Your task to perform on an android device: Search for "lg ultragear" on bestbuy.com, select the first entry, and add it to the cart. Image 0: 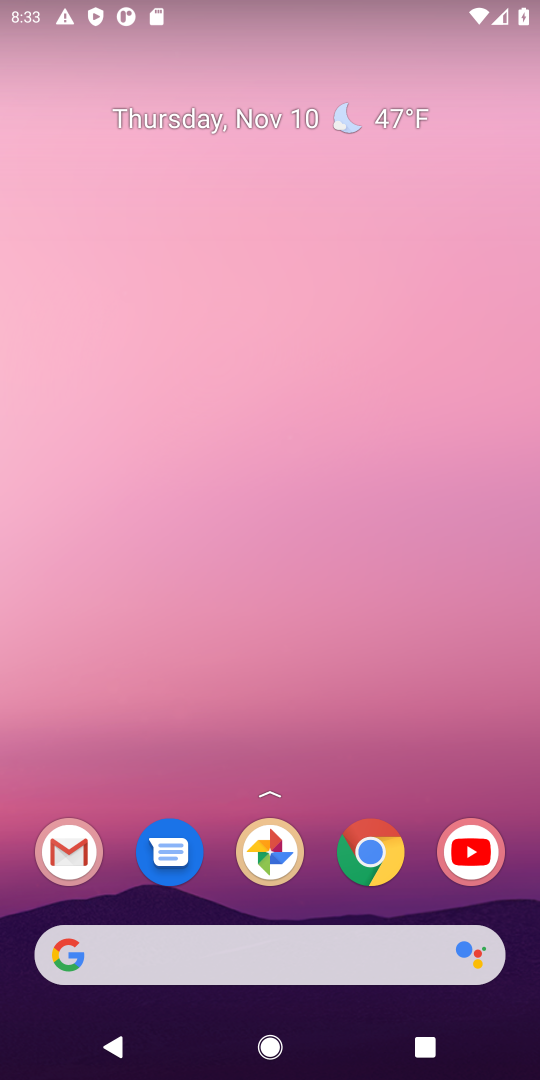
Step 0: click (363, 858)
Your task to perform on an android device: Search for "lg ultragear" on bestbuy.com, select the first entry, and add it to the cart. Image 1: 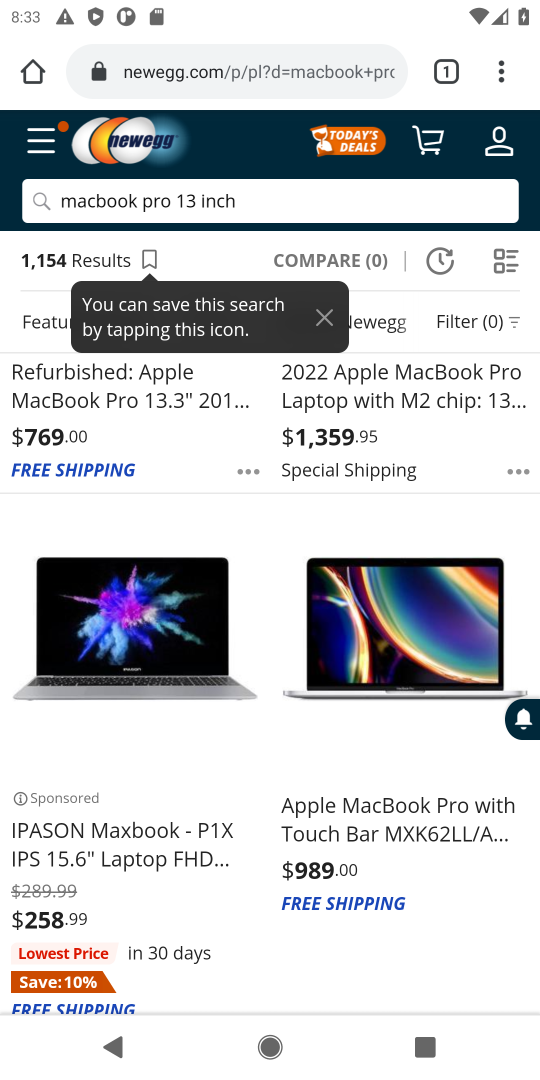
Step 1: click (286, 61)
Your task to perform on an android device: Search for "lg ultragear" on bestbuy.com, select the first entry, and add it to the cart. Image 2: 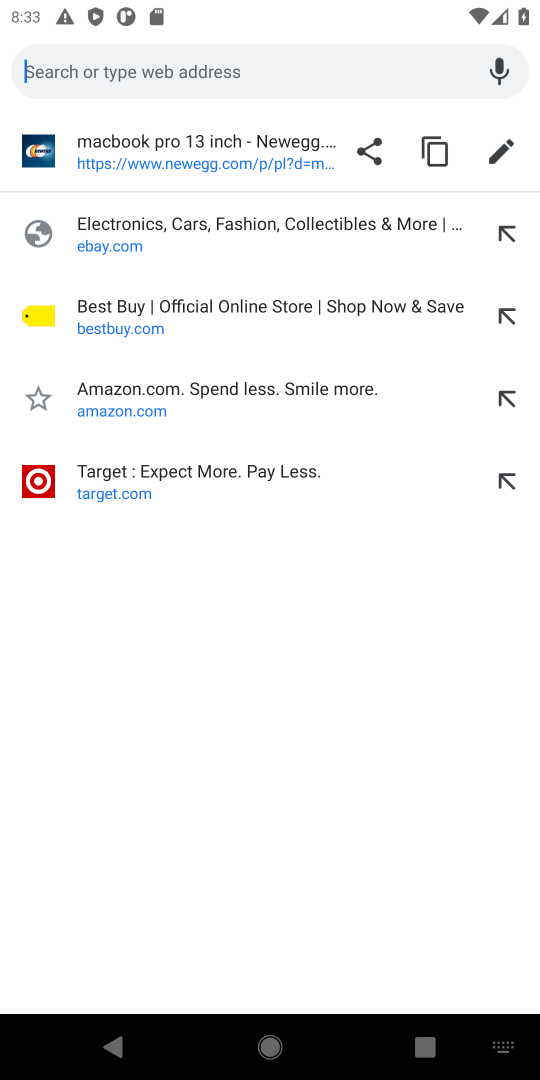
Step 2: click (125, 305)
Your task to perform on an android device: Search for "lg ultragear" on bestbuy.com, select the first entry, and add it to the cart. Image 3: 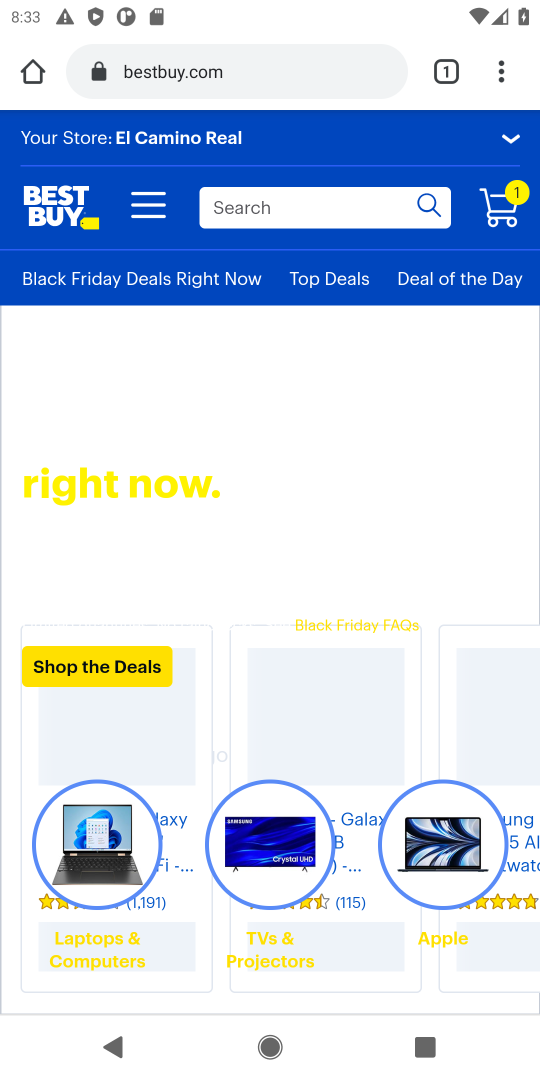
Step 3: click (317, 208)
Your task to perform on an android device: Search for "lg ultragear" on bestbuy.com, select the first entry, and add it to the cart. Image 4: 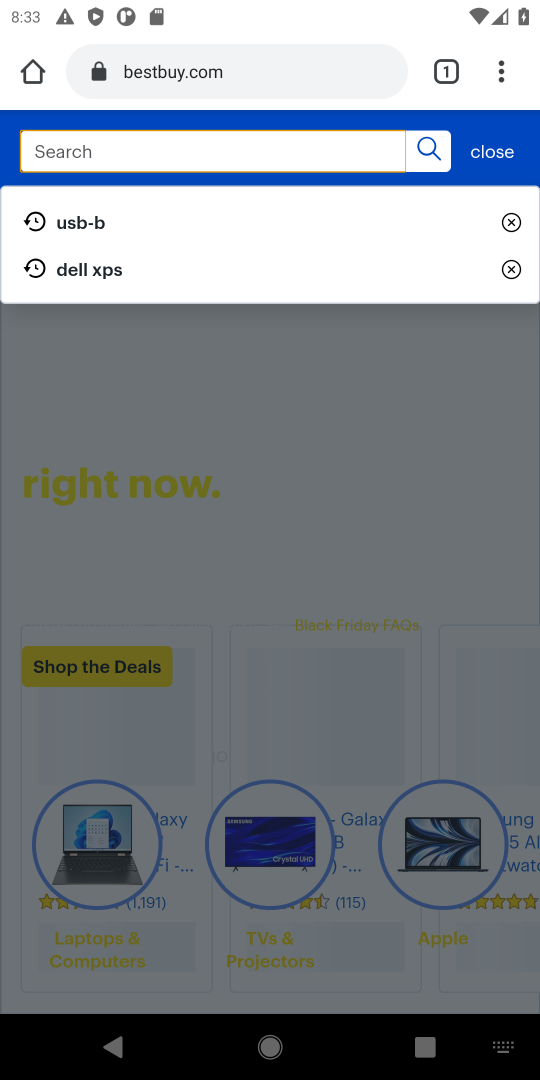
Step 4: type "lg ultragear"
Your task to perform on an android device: Search for "lg ultragear" on bestbuy.com, select the first entry, and add it to the cart. Image 5: 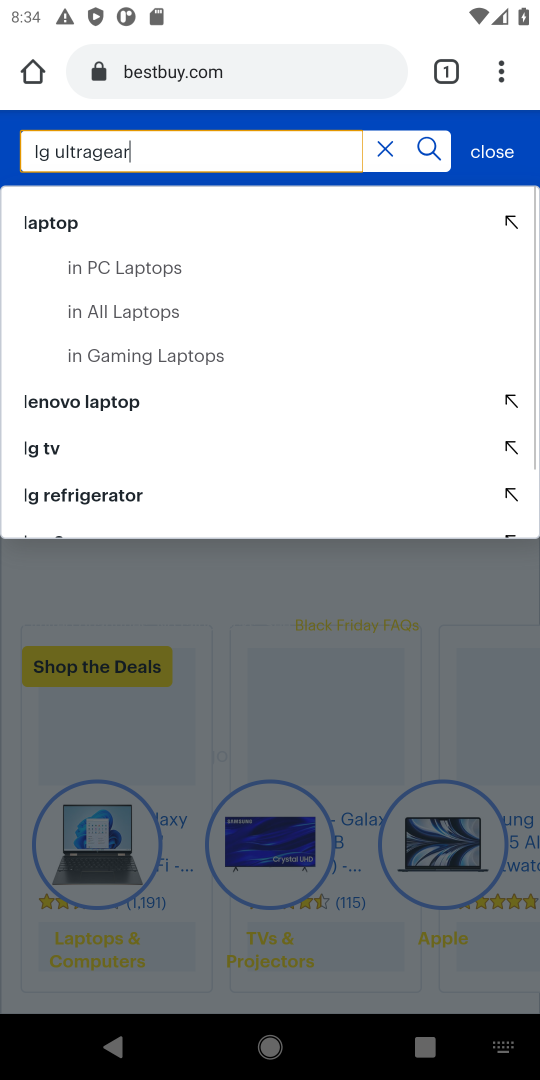
Step 5: press enter
Your task to perform on an android device: Search for "lg ultragear" on bestbuy.com, select the first entry, and add it to the cart. Image 6: 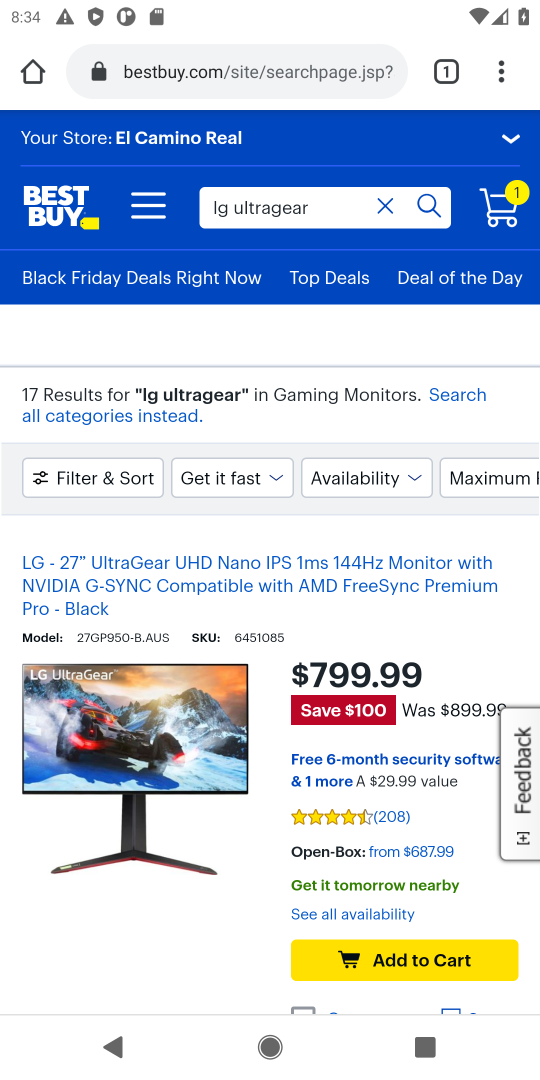
Step 6: click (450, 958)
Your task to perform on an android device: Search for "lg ultragear" on bestbuy.com, select the first entry, and add it to the cart. Image 7: 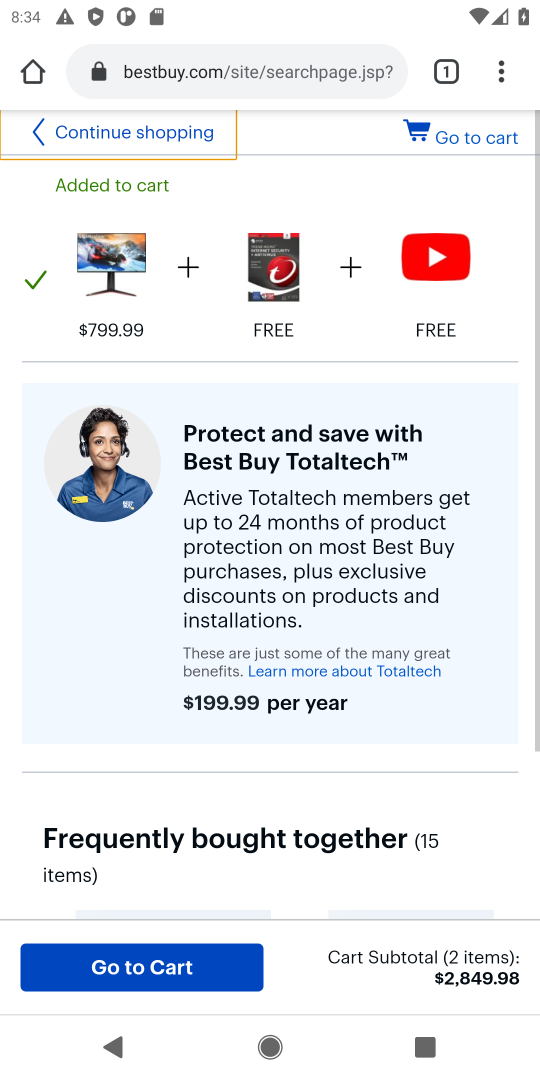
Step 7: click (478, 138)
Your task to perform on an android device: Search for "lg ultragear" on bestbuy.com, select the first entry, and add it to the cart. Image 8: 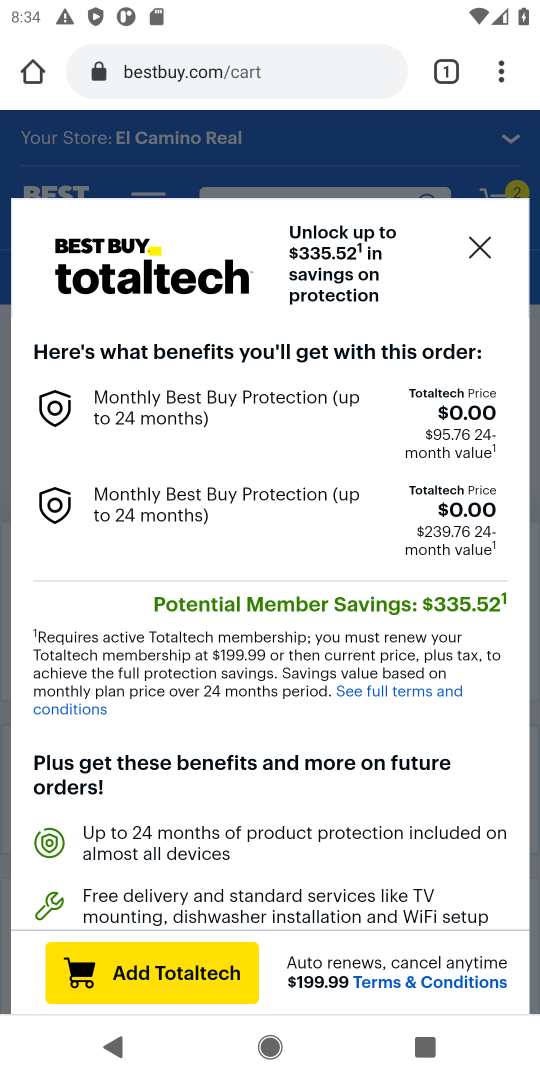
Step 8: click (483, 239)
Your task to perform on an android device: Search for "lg ultragear" on bestbuy.com, select the first entry, and add it to the cart. Image 9: 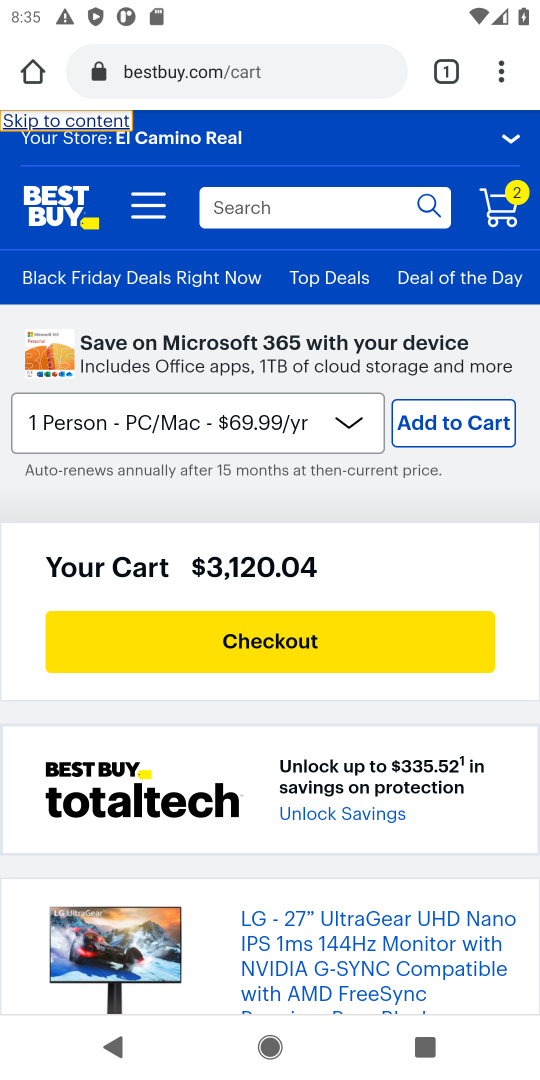
Step 9: drag from (262, 864) to (342, 317)
Your task to perform on an android device: Search for "lg ultragear" on bestbuy.com, select the first entry, and add it to the cart. Image 10: 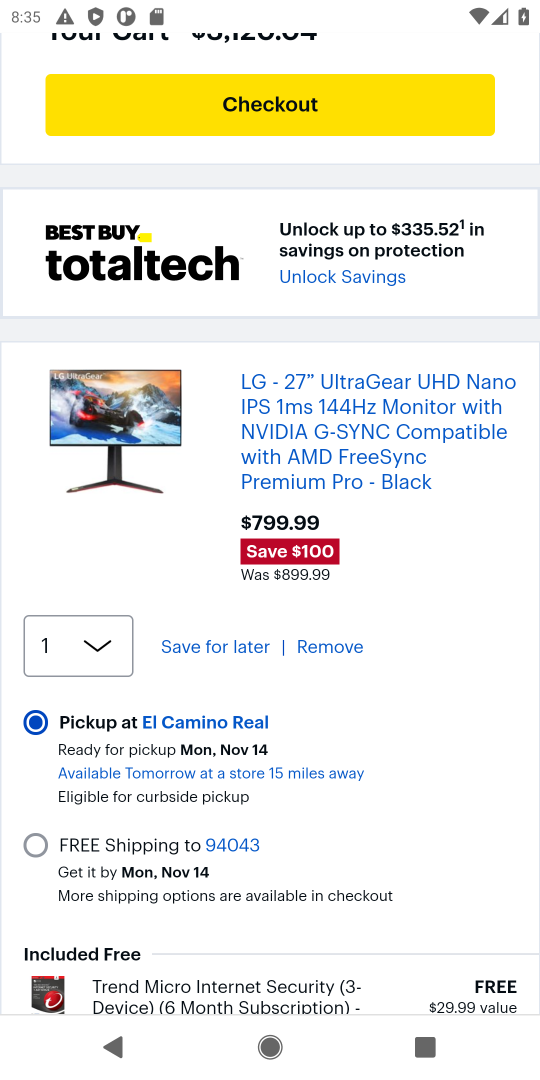
Step 10: drag from (247, 837) to (400, 256)
Your task to perform on an android device: Search for "lg ultragear" on bestbuy.com, select the first entry, and add it to the cart. Image 11: 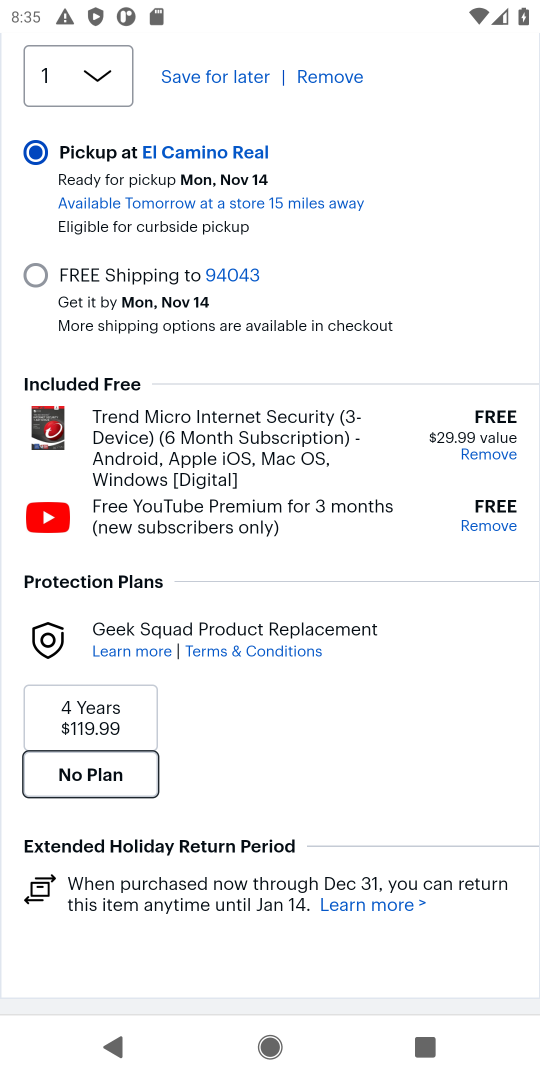
Step 11: drag from (281, 926) to (414, 259)
Your task to perform on an android device: Search for "lg ultragear" on bestbuy.com, select the first entry, and add it to the cart. Image 12: 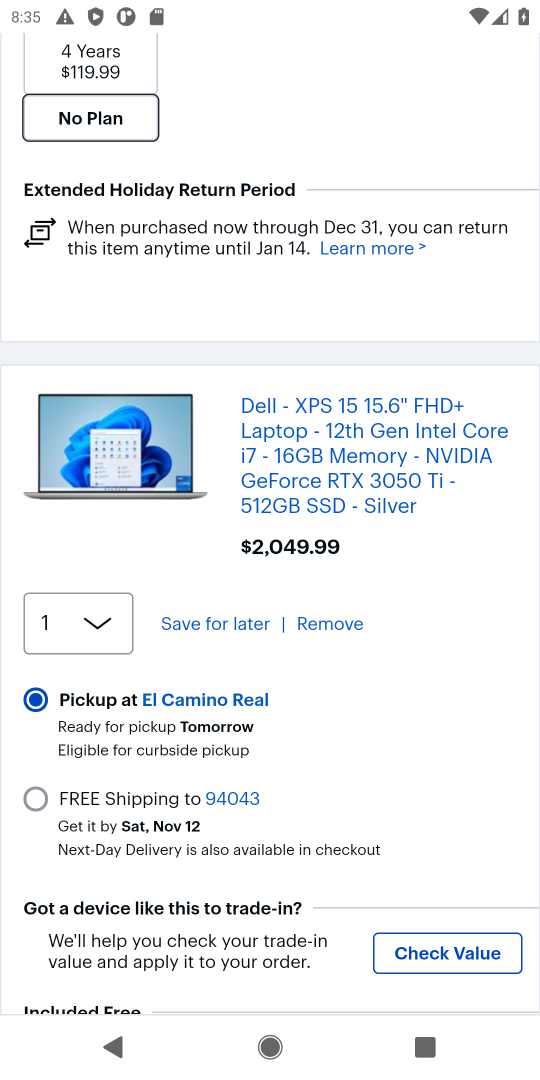
Step 12: click (317, 622)
Your task to perform on an android device: Search for "lg ultragear" on bestbuy.com, select the first entry, and add it to the cart. Image 13: 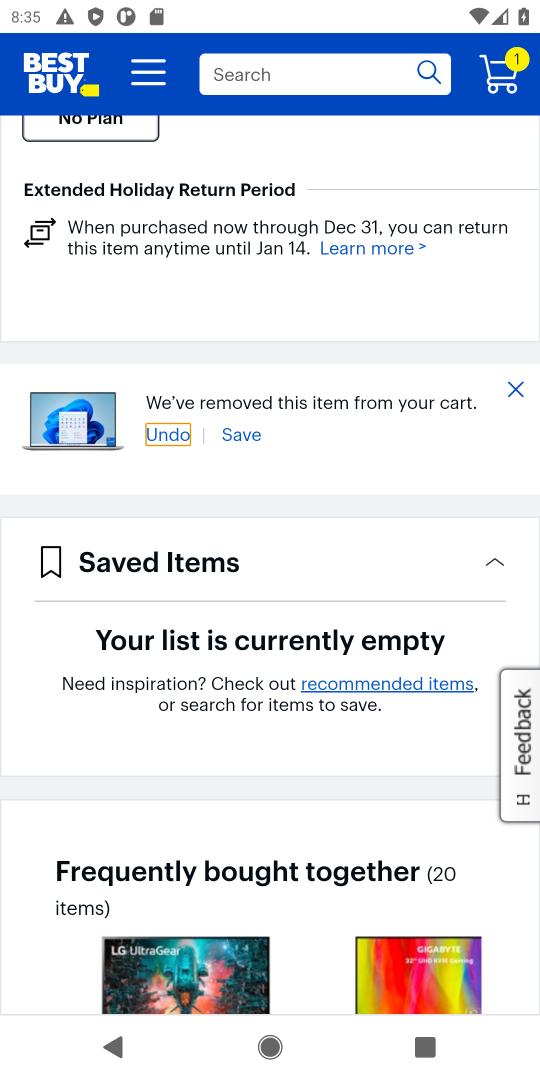
Step 13: task complete